Your task to perform on an android device: Open display settings Image 0: 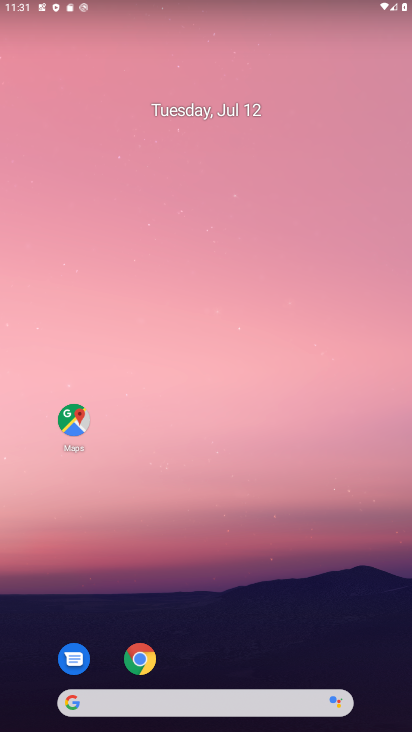
Step 0: drag from (317, 688) to (343, 148)
Your task to perform on an android device: Open display settings Image 1: 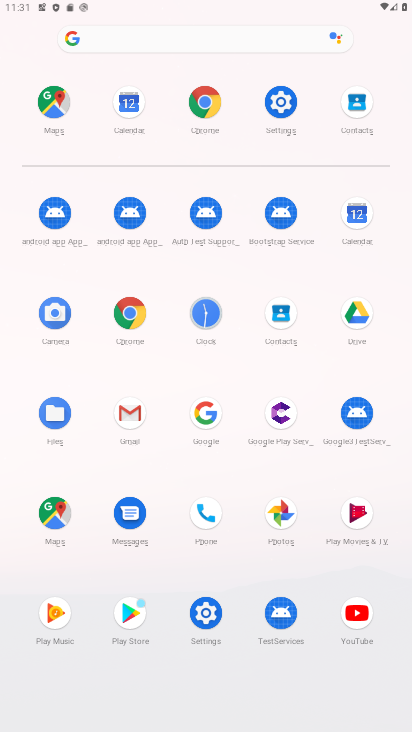
Step 1: click (289, 96)
Your task to perform on an android device: Open display settings Image 2: 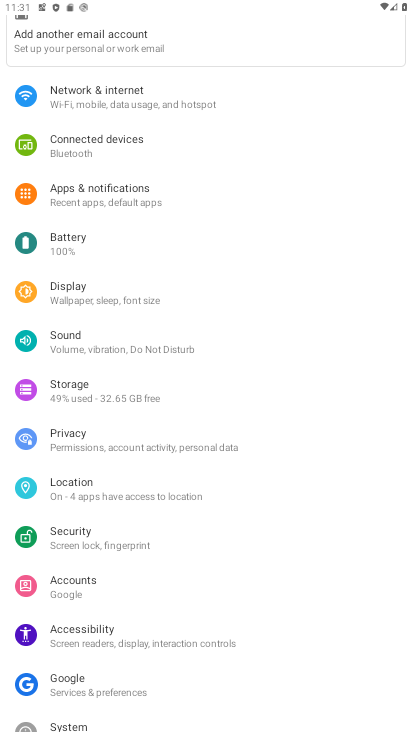
Step 2: click (138, 296)
Your task to perform on an android device: Open display settings Image 3: 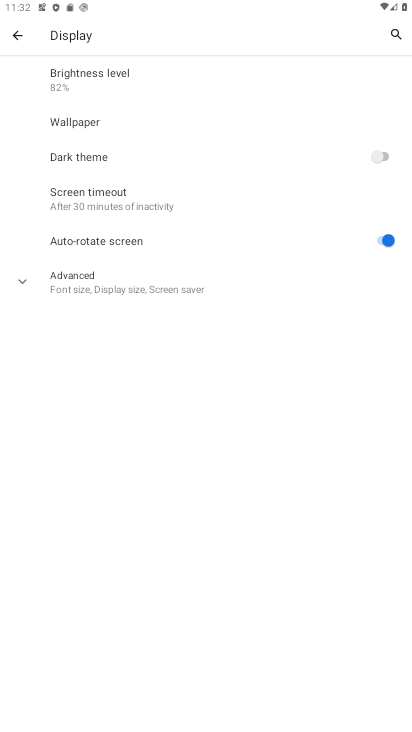
Step 3: task complete